Your task to perform on an android device: What is the recent news? Image 0: 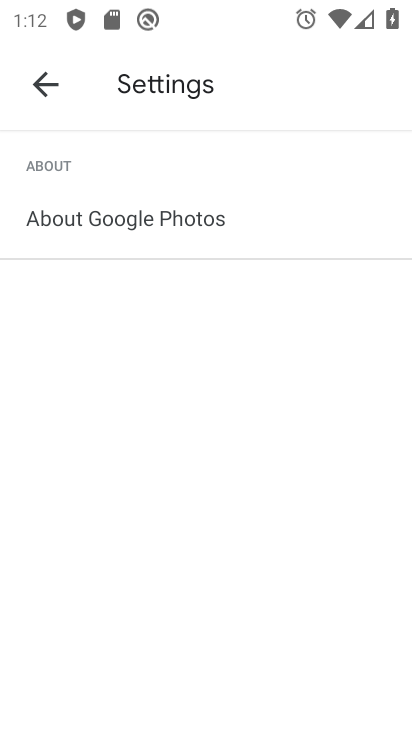
Step 0: press home button
Your task to perform on an android device: What is the recent news? Image 1: 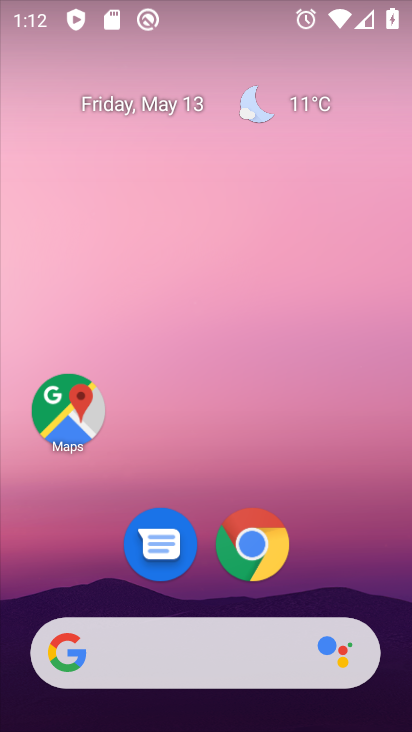
Step 1: click (257, 541)
Your task to perform on an android device: What is the recent news? Image 2: 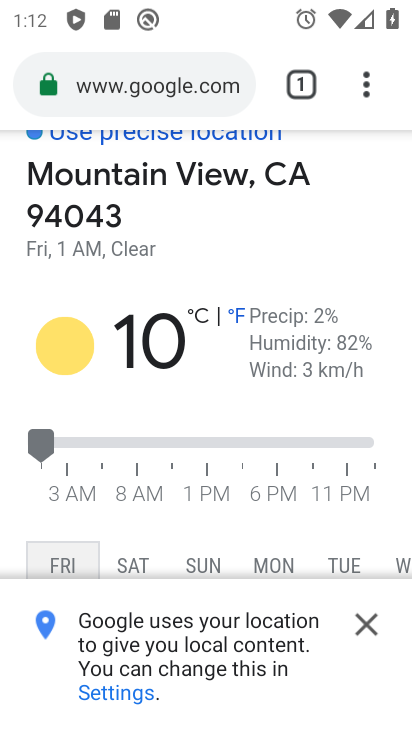
Step 2: click (151, 82)
Your task to perform on an android device: What is the recent news? Image 3: 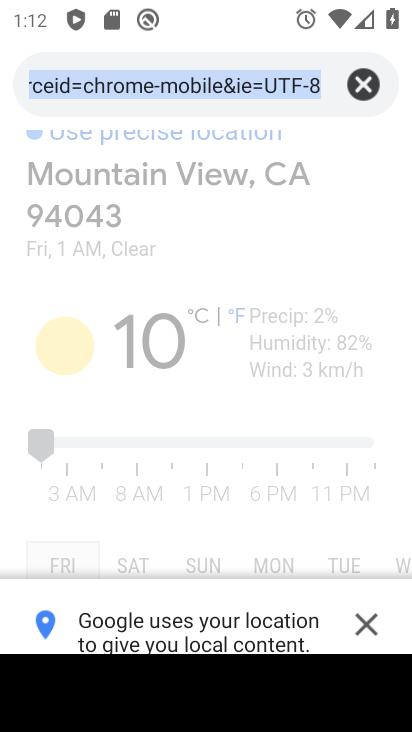
Step 3: type "recent news"
Your task to perform on an android device: What is the recent news? Image 4: 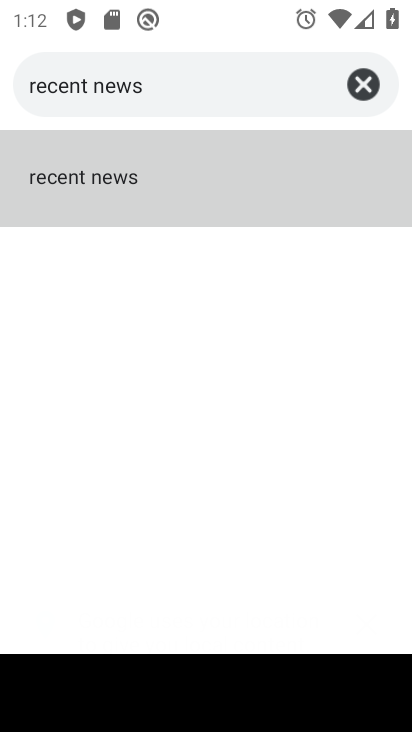
Step 4: click (103, 178)
Your task to perform on an android device: What is the recent news? Image 5: 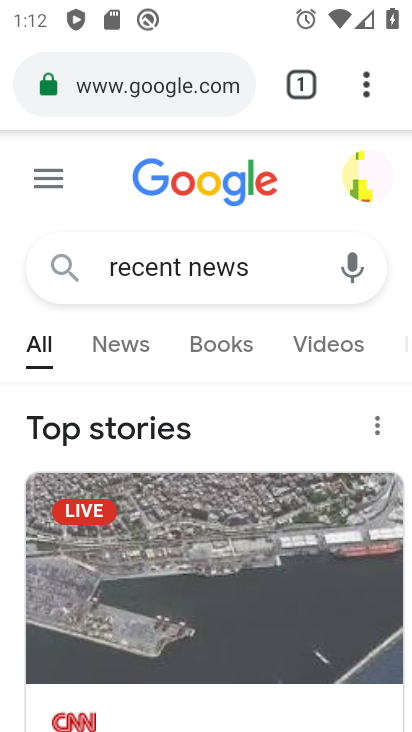
Step 5: task complete